Your task to perform on an android device: Open Maps and search for coffee Image 0: 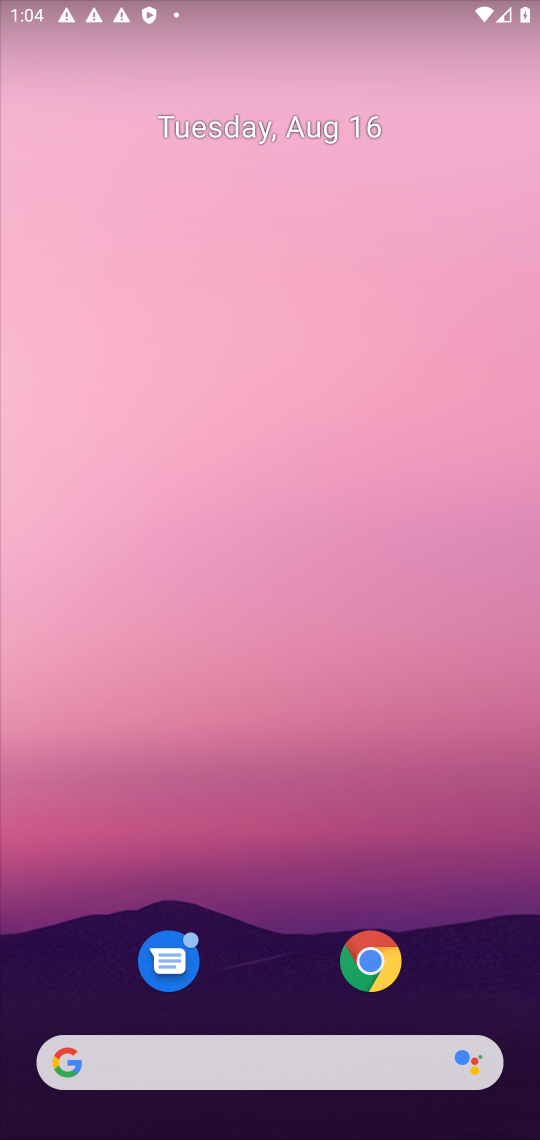
Step 0: drag from (488, 980) to (135, 2)
Your task to perform on an android device: Open Maps and search for coffee Image 1: 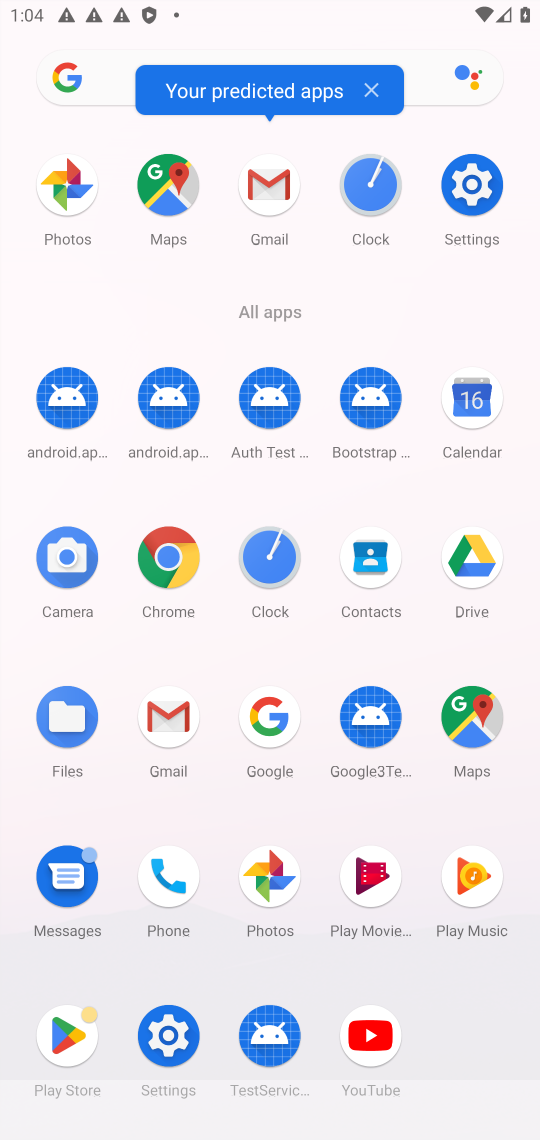
Step 1: click (470, 701)
Your task to perform on an android device: Open Maps and search for coffee Image 2: 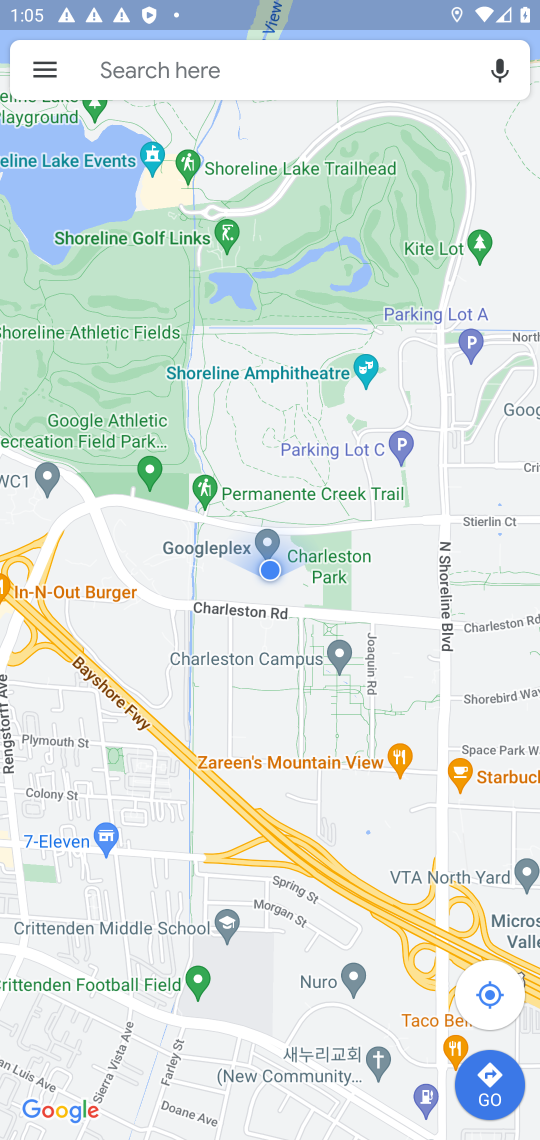
Step 2: click (184, 71)
Your task to perform on an android device: Open Maps and search for coffee Image 3: 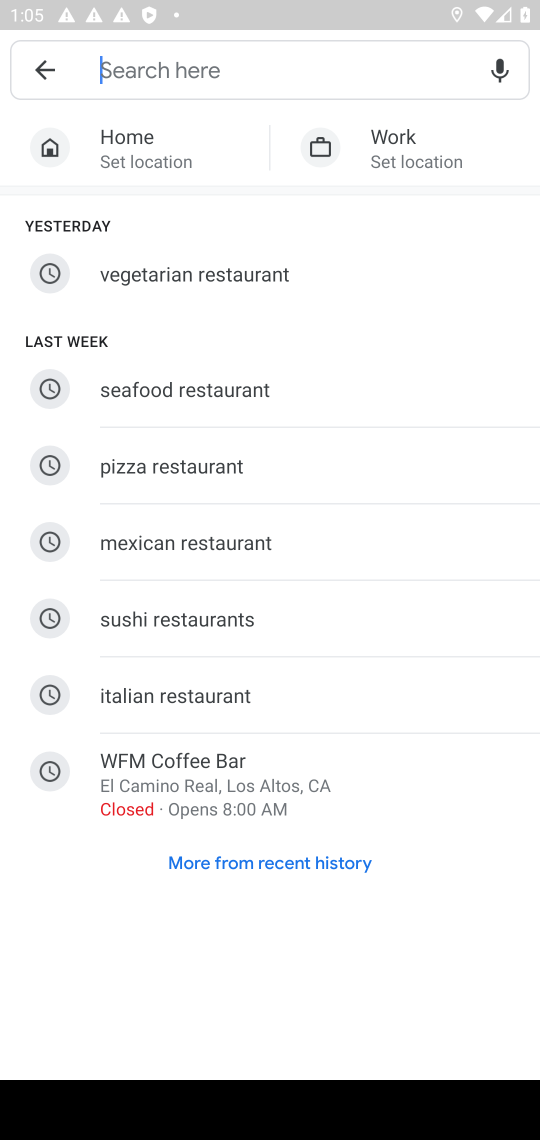
Step 3: type " coffee"
Your task to perform on an android device: Open Maps and search for coffee Image 4: 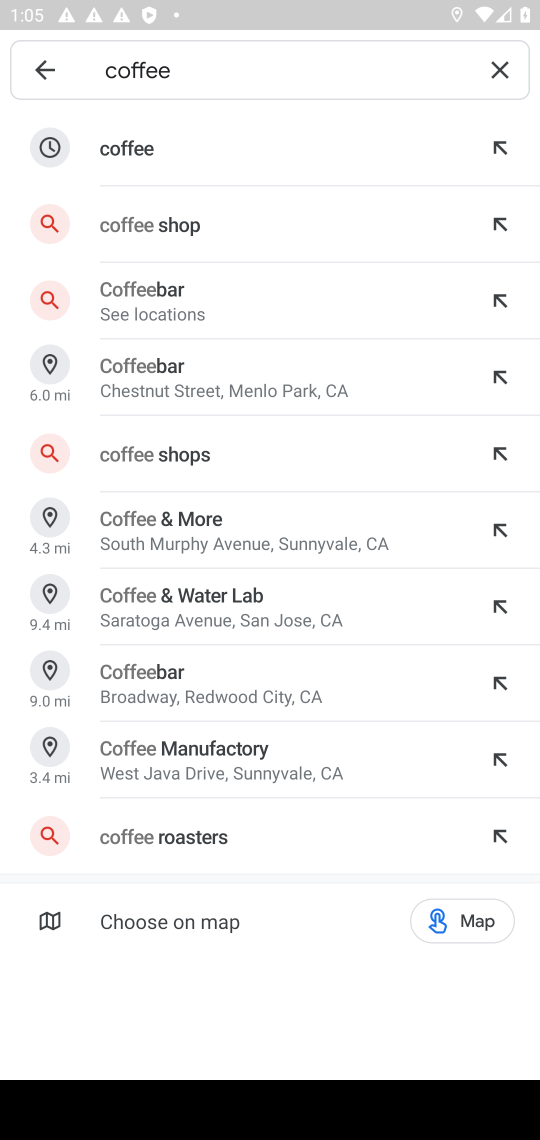
Step 4: click (191, 163)
Your task to perform on an android device: Open Maps and search for coffee Image 5: 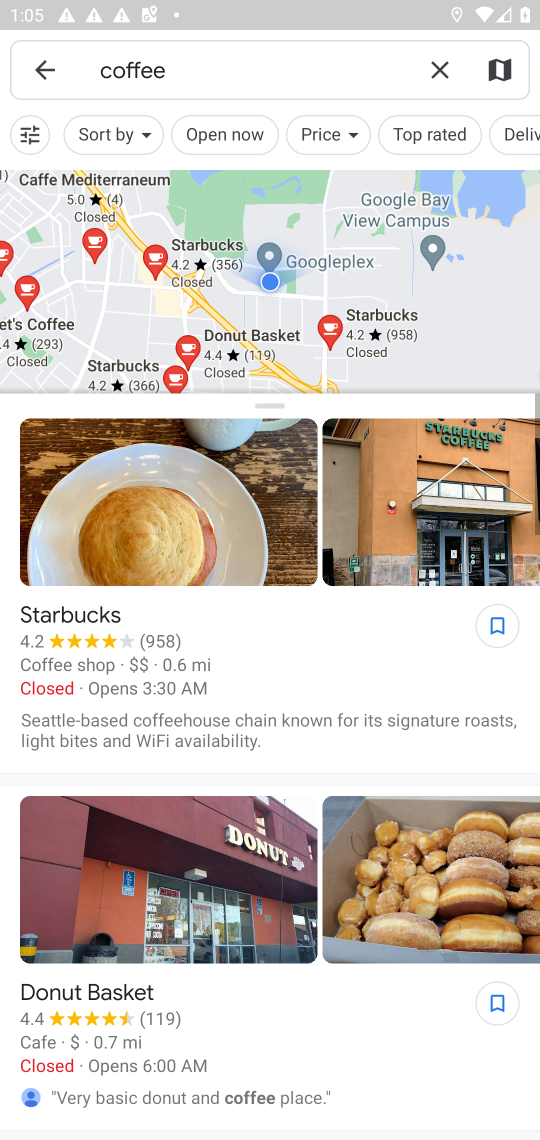
Step 5: task complete